Your task to perform on an android device: turn off sleep mode Image 0: 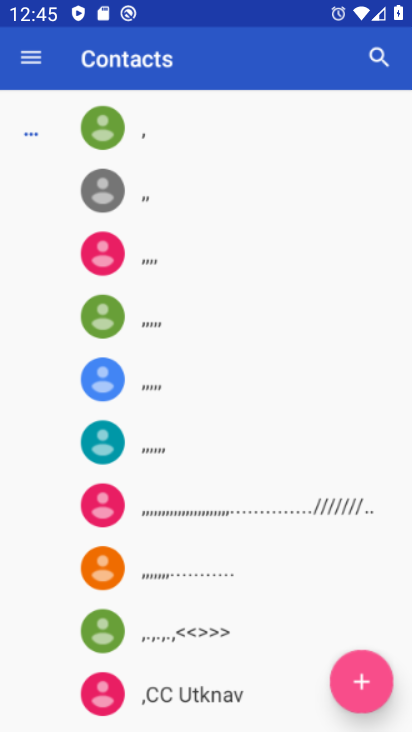
Step 0: click (215, 691)
Your task to perform on an android device: turn off sleep mode Image 1: 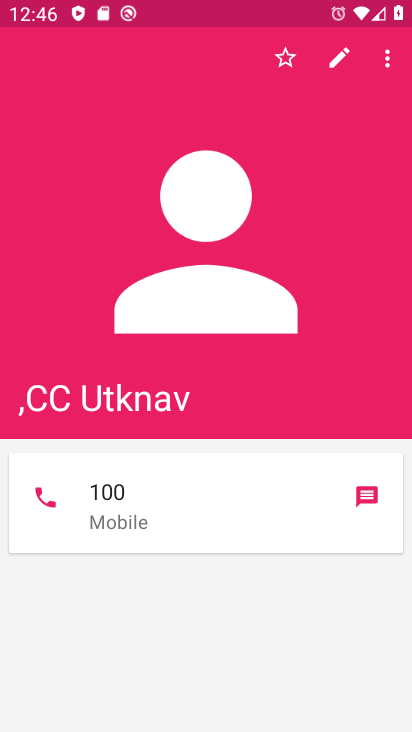
Step 1: press home button
Your task to perform on an android device: turn off sleep mode Image 2: 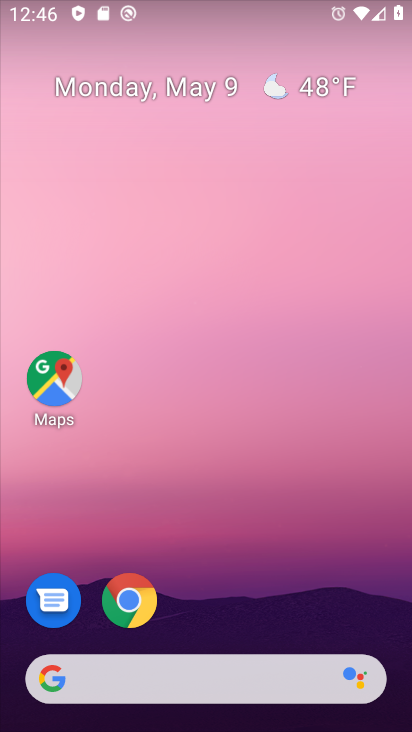
Step 2: drag from (182, 7) to (187, 726)
Your task to perform on an android device: turn off sleep mode Image 3: 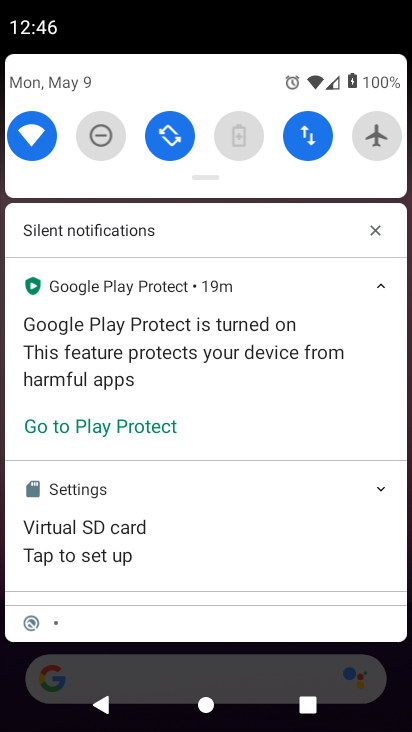
Step 3: drag from (326, 128) to (91, 153)
Your task to perform on an android device: turn off sleep mode Image 4: 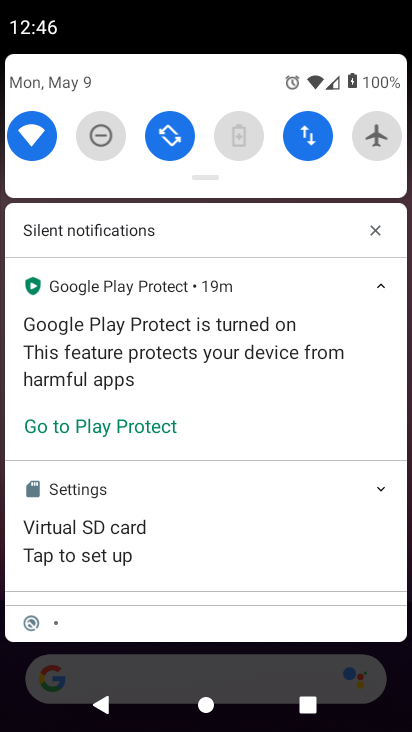
Step 4: drag from (178, 335) to (193, 593)
Your task to perform on an android device: turn off sleep mode Image 5: 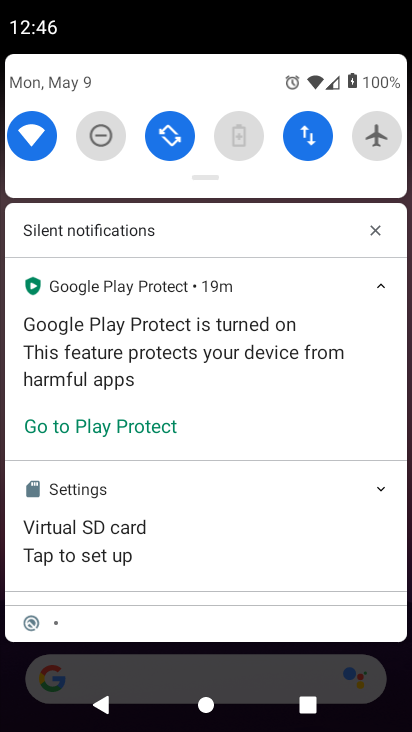
Step 5: drag from (177, 220) to (202, 607)
Your task to perform on an android device: turn off sleep mode Image 6: 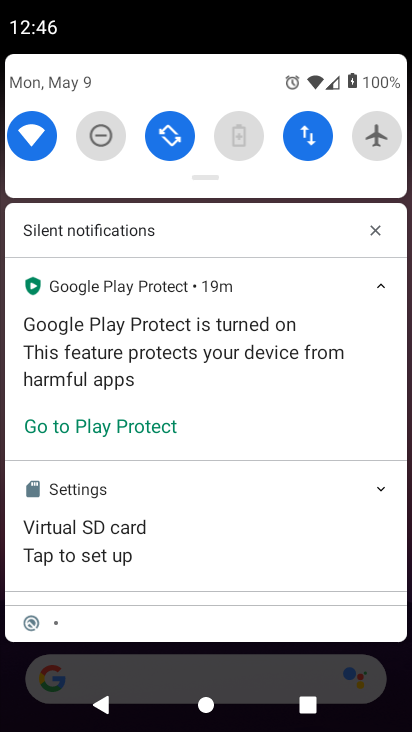
Step 6: press home button
Your task to perform on an android device: turn off sleep mode Image 7: 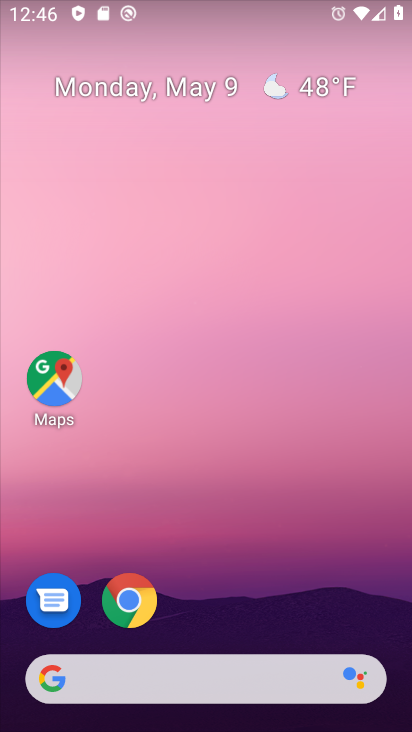
Step 7: drag from (234, 573) to (324, 288)
Your task to perform on an android device: turn off sleep mode Image 8: 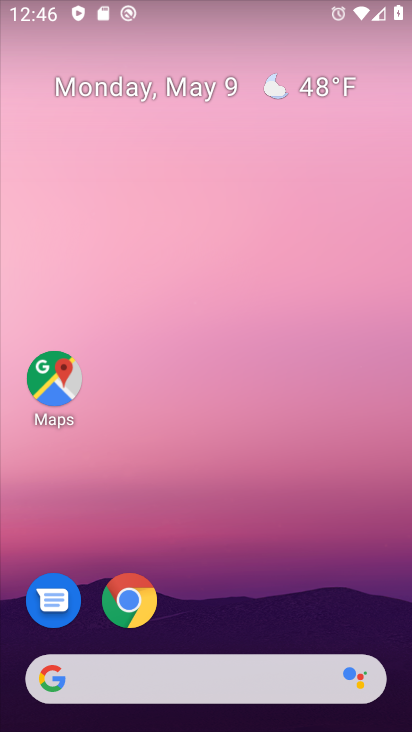
Step 8: drag from (229, 502) to (356, 56)
Your task to perform on an android device: turn off sleep mode Image 9: 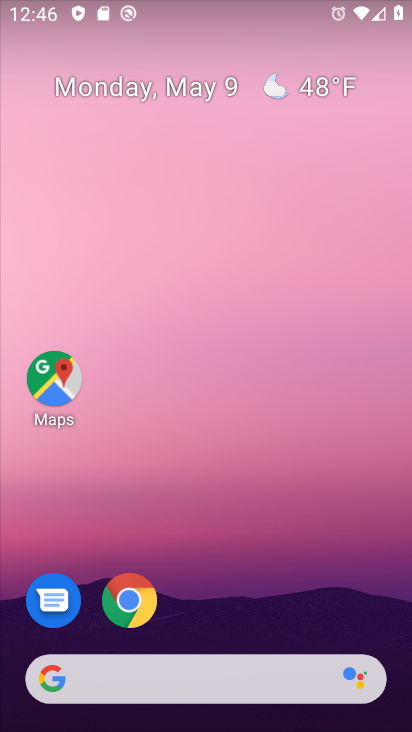
Step 9: drag from (247, 625) to (295, 201)
Your task to perform on an android device: turn off sleep mode Image 10: 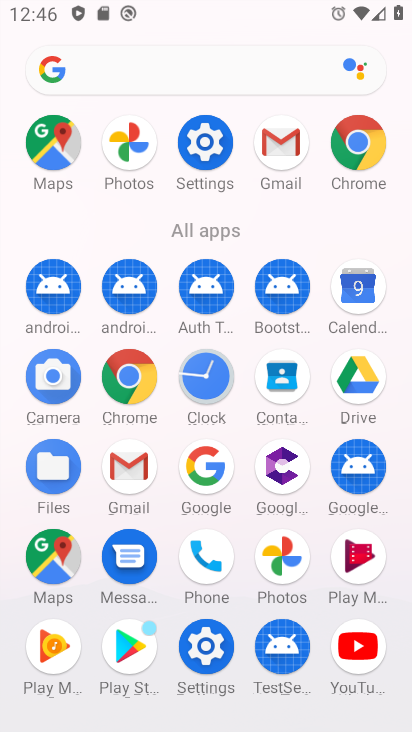
Step 10: click (219, 158)
Your task to perform on an android device: turn off sleep mode Image 11: 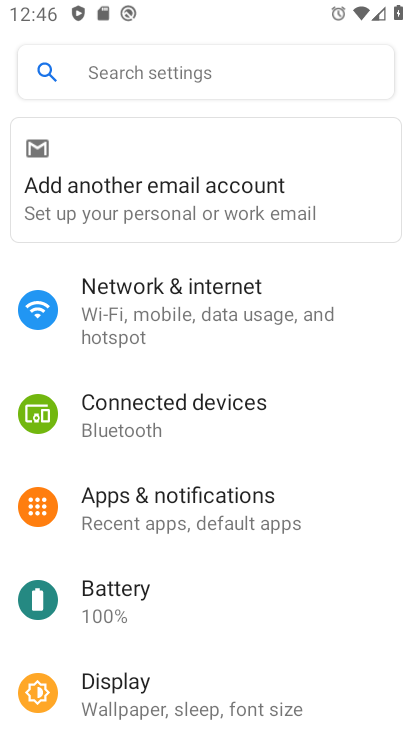
Step 11: click (147, 694)
Your task to perform on an android device: turn off sleep mode Image 12: 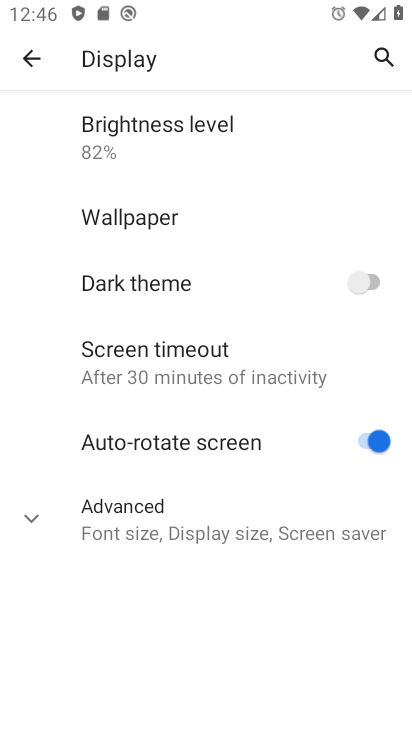
Step 12: click (175, 504)
Your task to perform on an android device: turn off sleep mode Image 13: 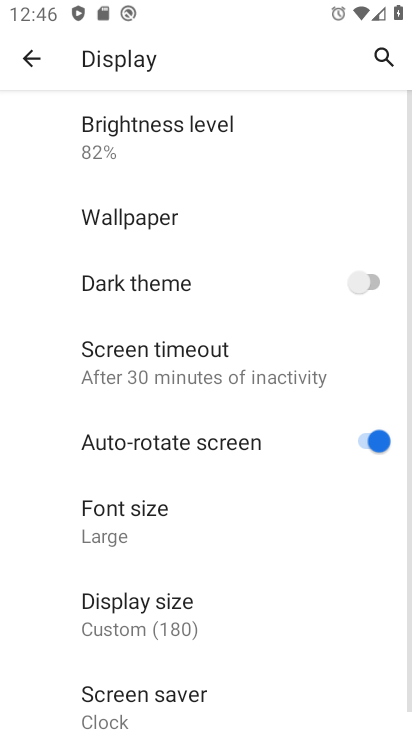
Step 13: drag from (135, 614) to (219, 383)
Your task to perform on an android device: turn off sleep mode Image 14: 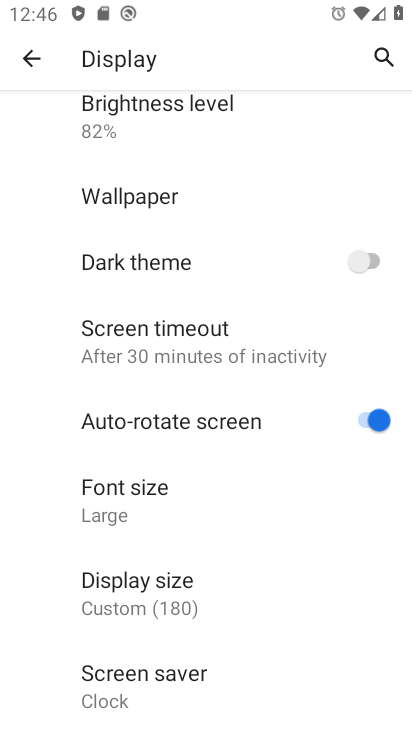
Step 14: click (29, 52)
Your task to perform on an android device: turn off sleep mode Image 15: 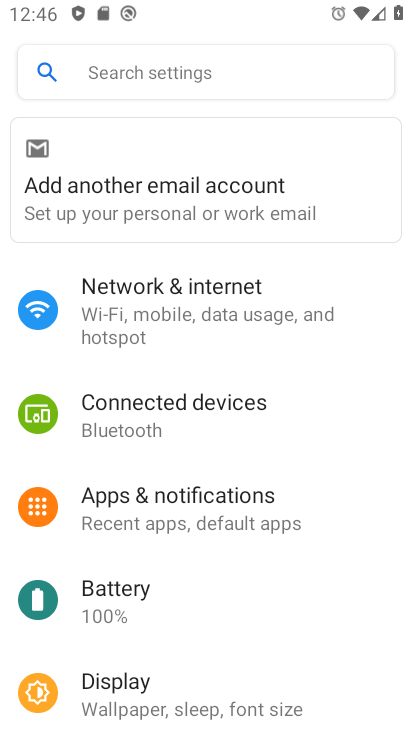
Step 15: drag from (138, 559) to (211, 375)
Your task to perform on an android device: turn off sleep mode Image 16: 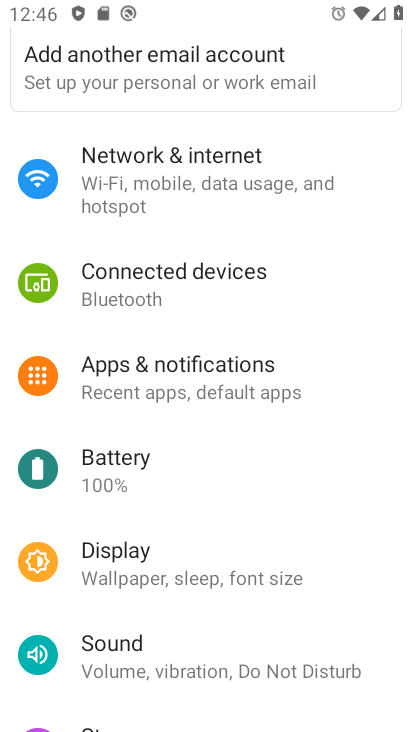
Step 16: drag from (141, 684) to (271, 352)
Your task to perform on an android device: turn off sleep mode Image 17: 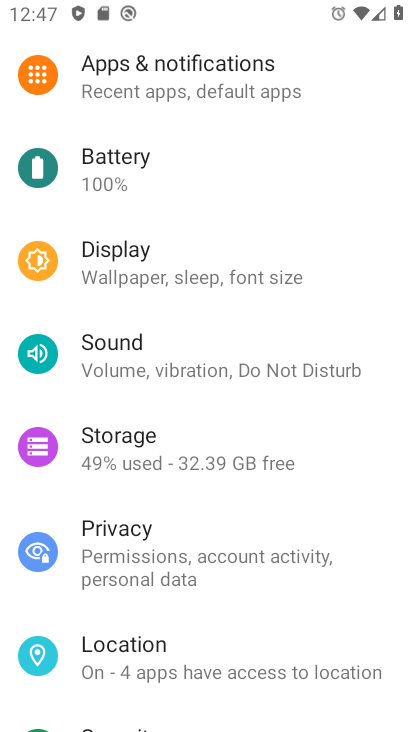
Step 17: drag from (179, 533) to (240, 321)
Your task to perform on an android device: turn off sleep mode Image 18: 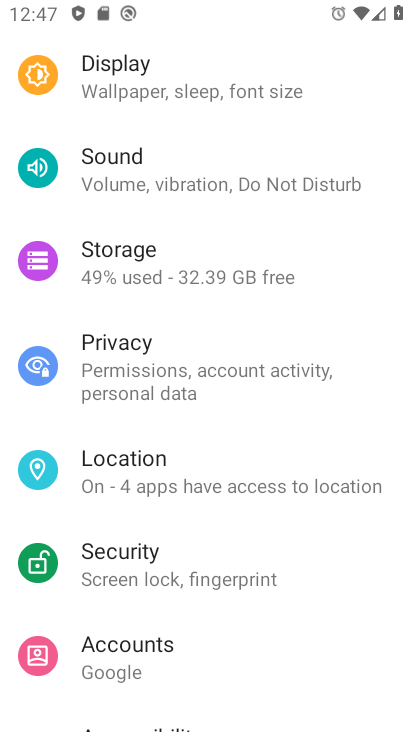
Step 18: drag from (235, 172) to (184, 433)
Your task to perform on an android device: turn off sleep mode Image 19: 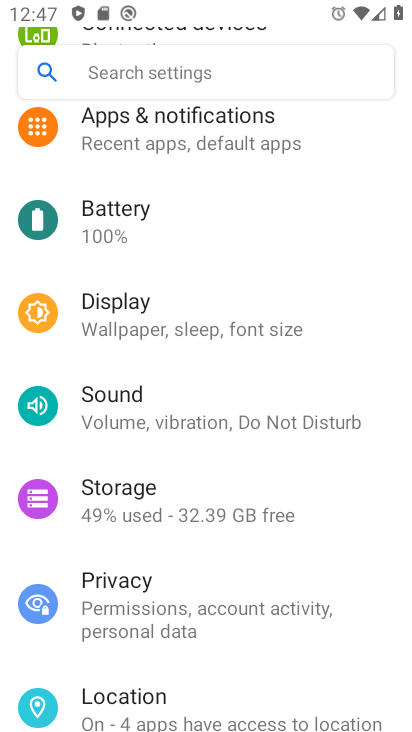
Step 19: click (154, 333)
Your task to perform on an android device: turn off sleep mode Image 20: 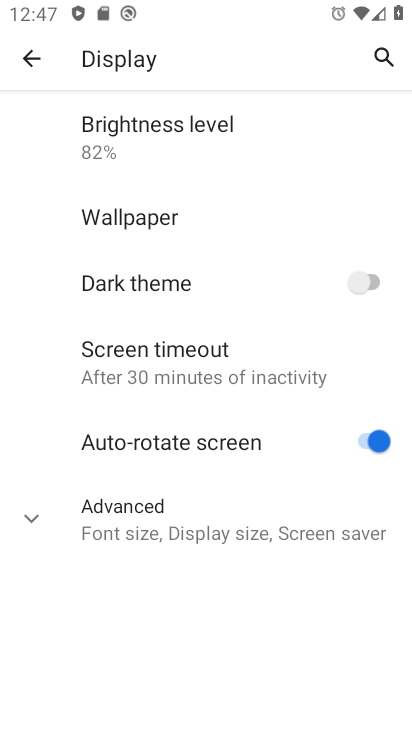
Step 20: click (172, 136)
Your task to perform on an android device: turn off sleep mode Image 21: 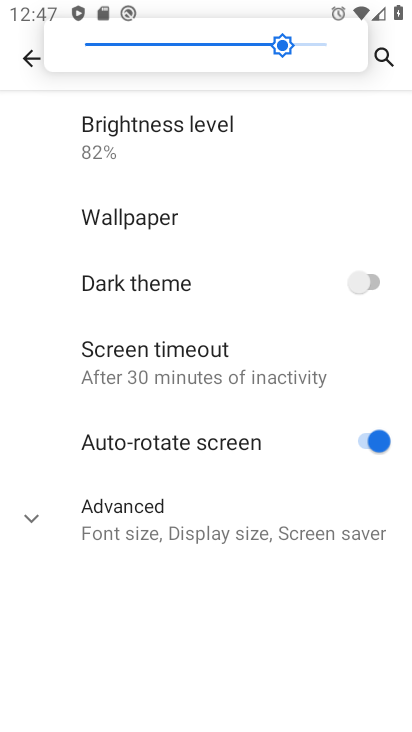
Step 21: click (24, 53)
Your task to perform on an android device: turn off sleep mode Image 22: 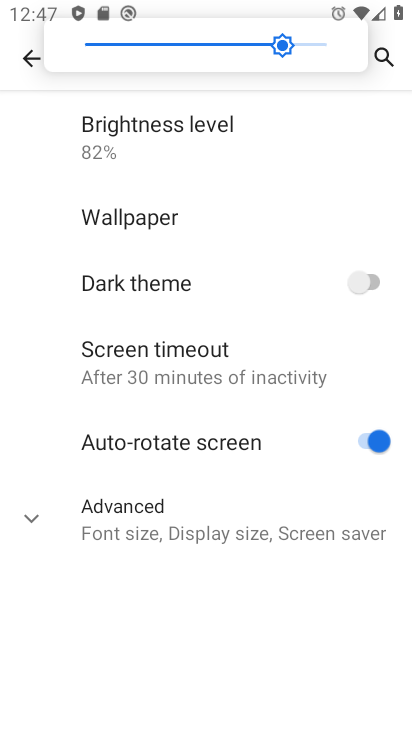
Step 22: click (95, 509)
Your task to perform on an android device: turn off sleep mode Image 23: 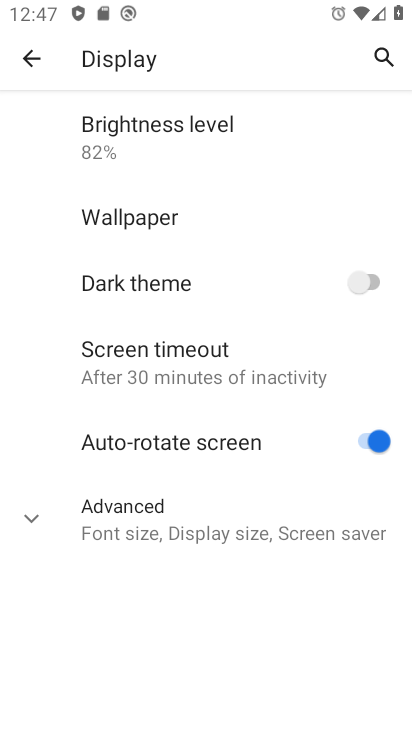
Step 23: task complete